Your task to perform on an android device: Search for sushi restaurants on Maps Image 0: 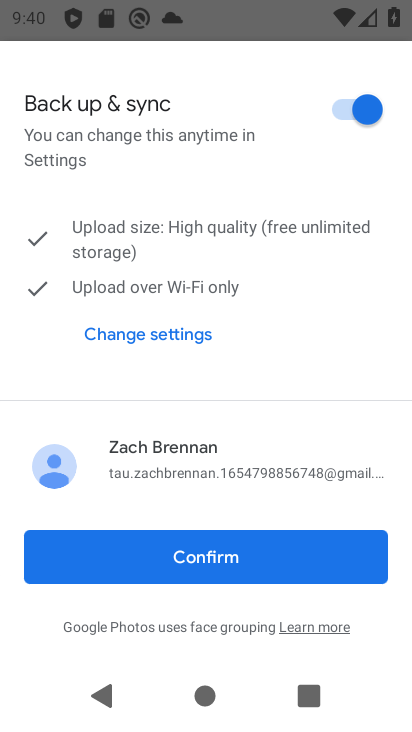
Step 0: press home button
Your task to perform on an android device: Search for sushi restaurants on Maps Image 1: 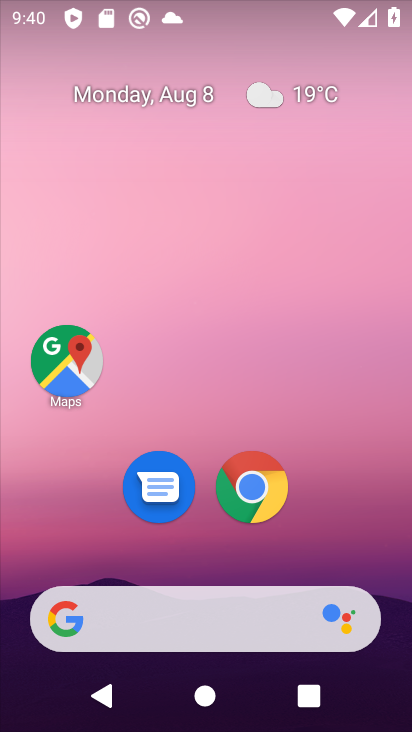
Step 1: drag from (219, 568) to (214, 90)
Your task to perform on an android device: Search for sushi restaurants on Maps Image 2: 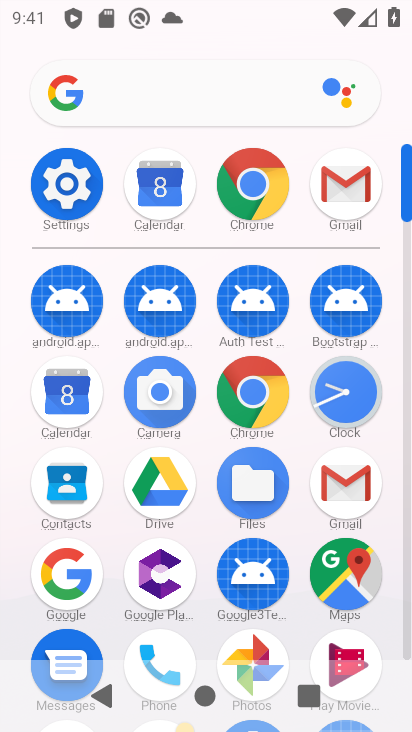
Step 2: click (352, 564)
Your task to perform on an android device: Search for sushi restaurants on Maps Image 3: 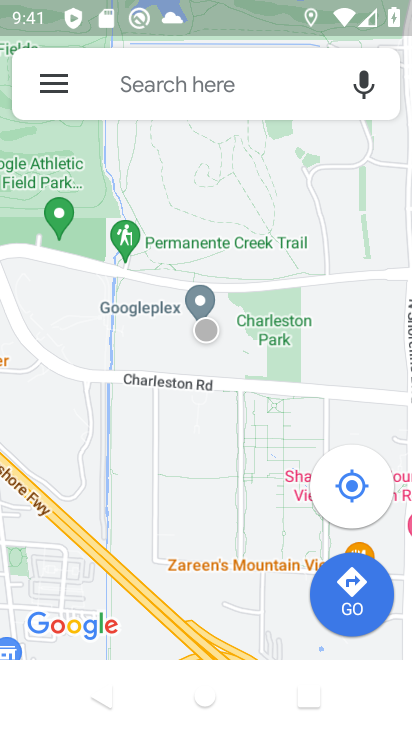
Step 3: click (186, 77)
Your task to perform on an android device: Search for sushi restaurants on Maps Image 4: 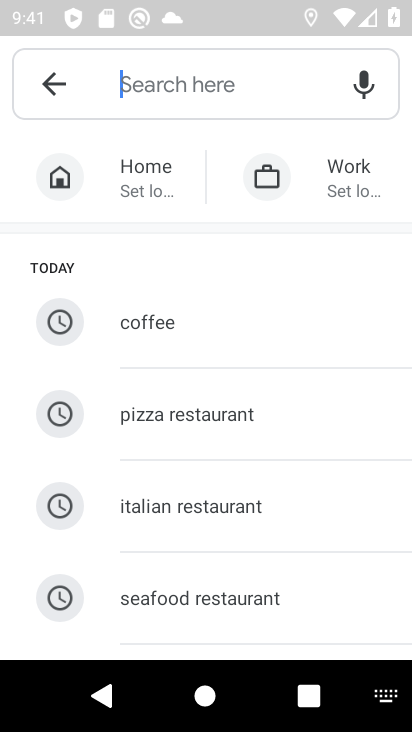
Step 4: type "Sushi restaurants"
Your task to perform on an android device: Search for sushi restaurants on Maps Image 5: 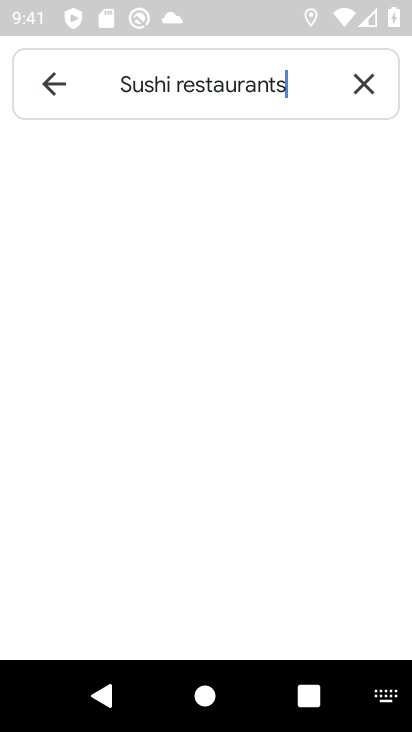
Step 5: type ""
Your task to perform on an android device: Search for sushi restaurants on Maps Image 6: 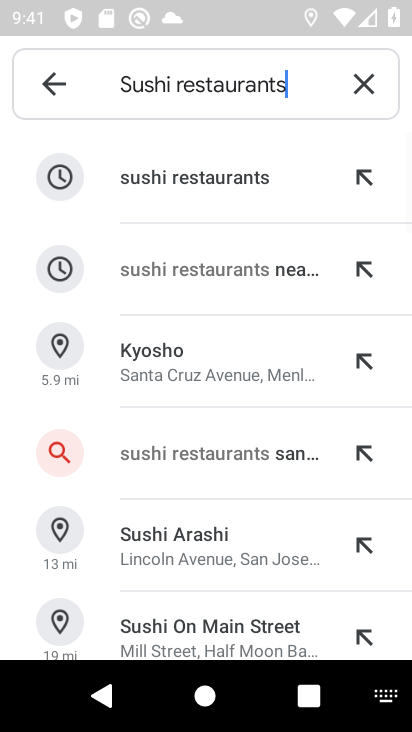
Step 6: click (187, 179)
Your task to perform on an android device: Search for sushi restaurants on Maps Image 7: 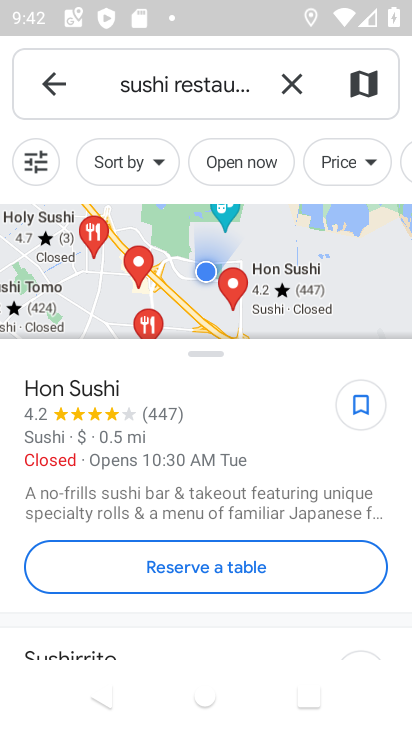
Step 7: task complete